Your task to perform on an android device: turn on location history Image 0: 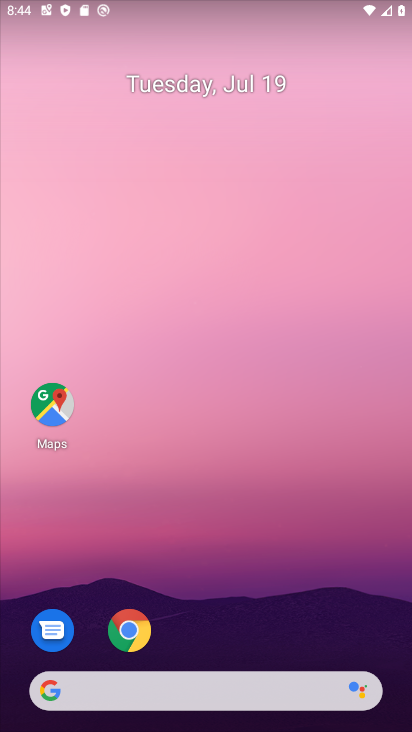
Step 0: drag from (187, 628) to (251, 53)
Your task to perform on an android device: turn on location history Image 1: 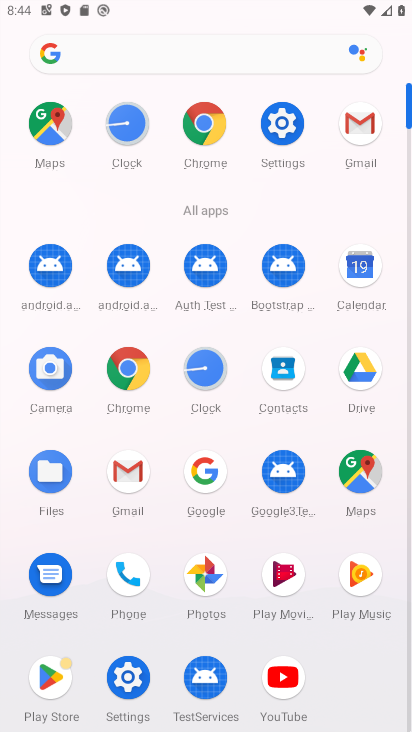
Step 1: click (283, 132)
Your task to perform on an android device: turn on location history Image 2: 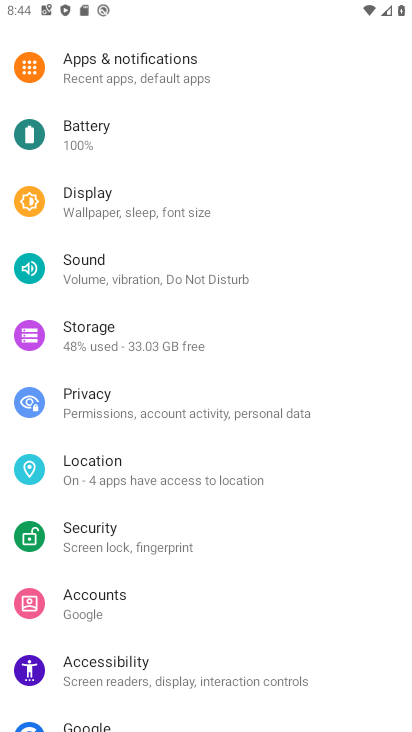
Step 2: click (89, 475)
Your task to perform on an android device: turn on location history Image 3: 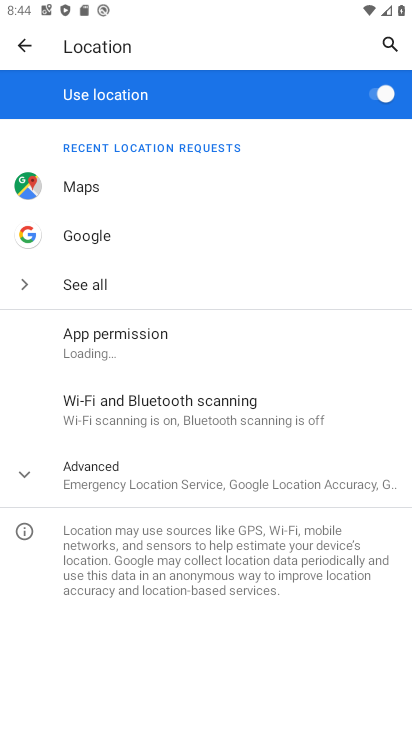
Step 3: click (73, 474)
Your task to perform on an android device: turn on location history Image 4: 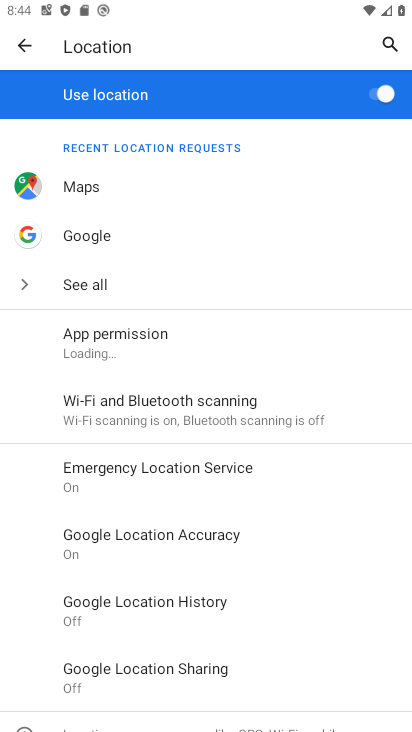
Step 4: click (203, 603)
Your task to perform on an android device: turn on location history Image 5: 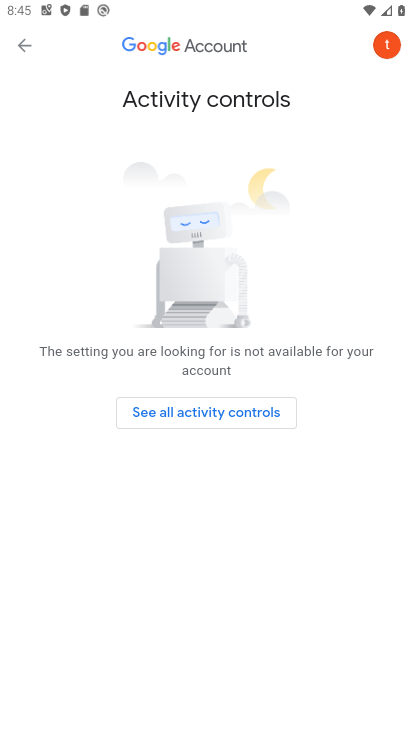
Step 5: task complete